Your task to perform on an android device: show emergency info Image 0: 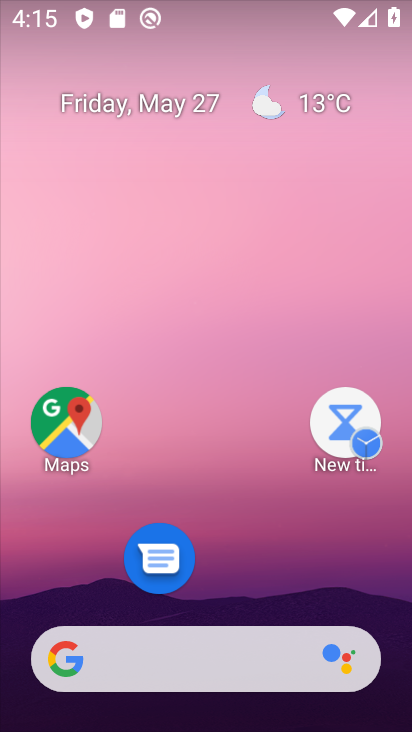
Step 0: drag from (325, 696) to (137, 156)
Your task to perform on an android device: show emergency info Image 1: 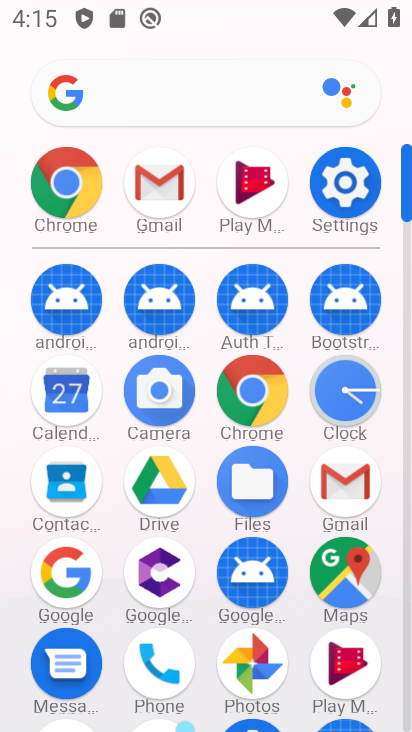
Step 1: click (349, 185)
Your task to perform on an android device: show emergency info Image 2: 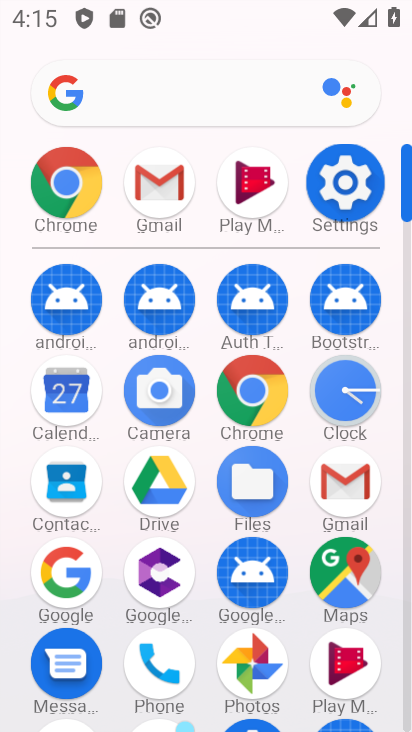
Step 2: click (354, 181)
Your task to perform on an android device: show emergency info Image 3: 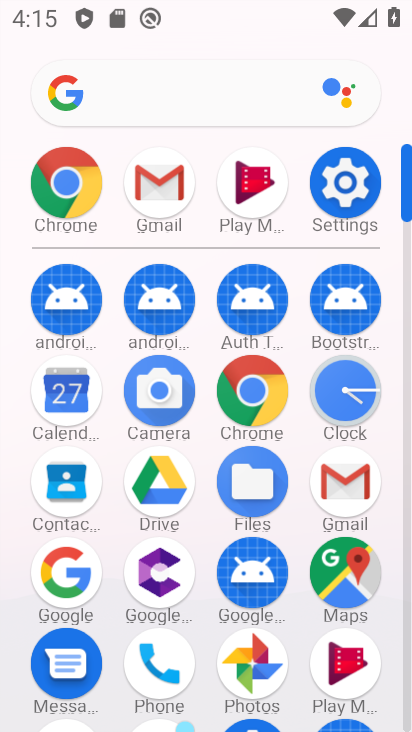
Step 3: click (356, 181)
Your task to perform on an android device: show emergency info Image 4: 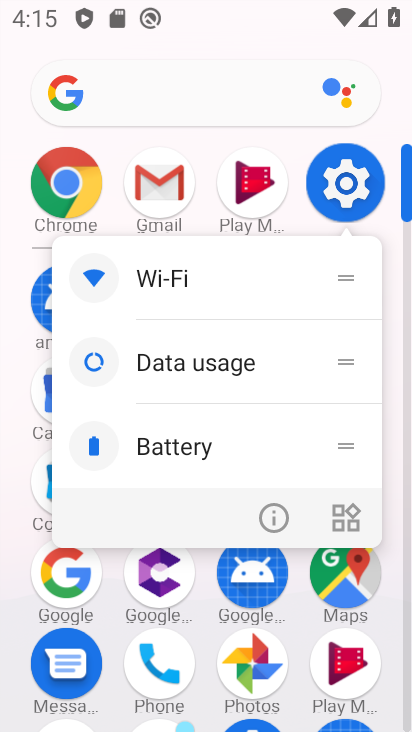
Step 4: click (356, 181)
Your task to perform on an android device: show emergency info Image 5: 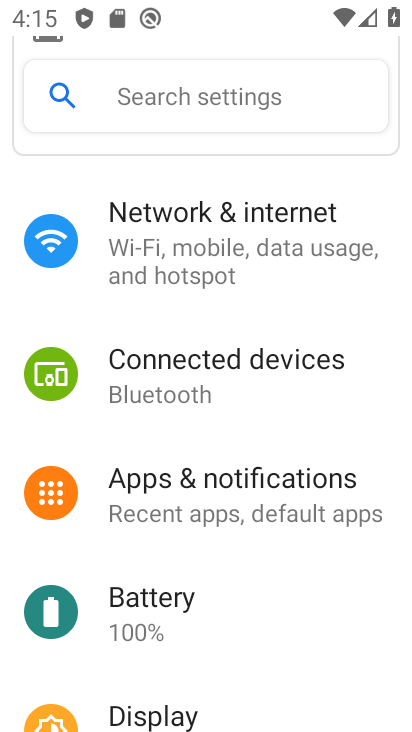
Step 5: drag from (216, 499) to (166, 142)
Your task to perform on an android device: show emergency info Image 6: 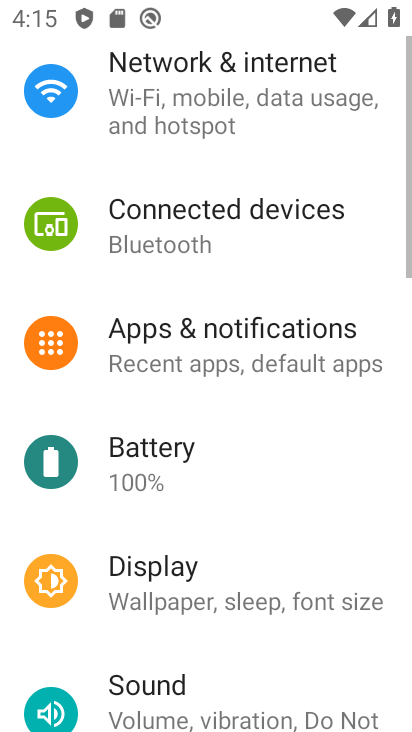
Step 6: drag from (234, 148) to (234, 194)
Your task to perform on an android device: show emergency info Image 7: 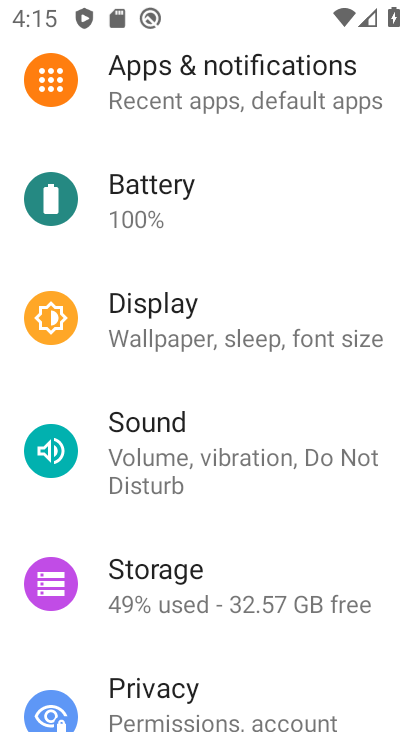
Step 7: drag from (172, 640) to (201, 144)
Your task to perform on an android device: show emergency info Image 8: 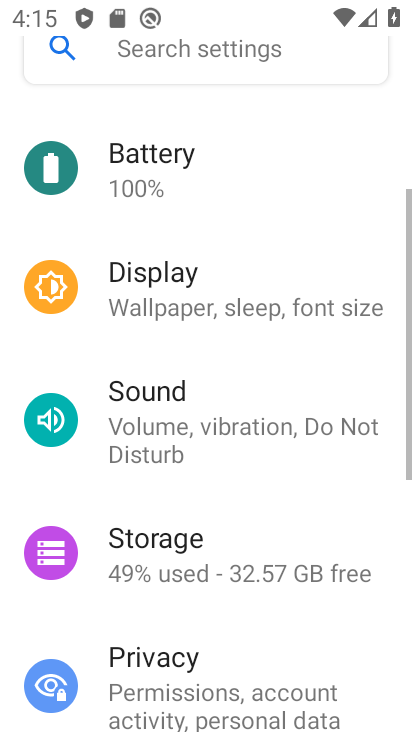
Step 8: drag from (206, 483) to (204, 122)
Your task to perform on an android device: show emergency info Image 9: 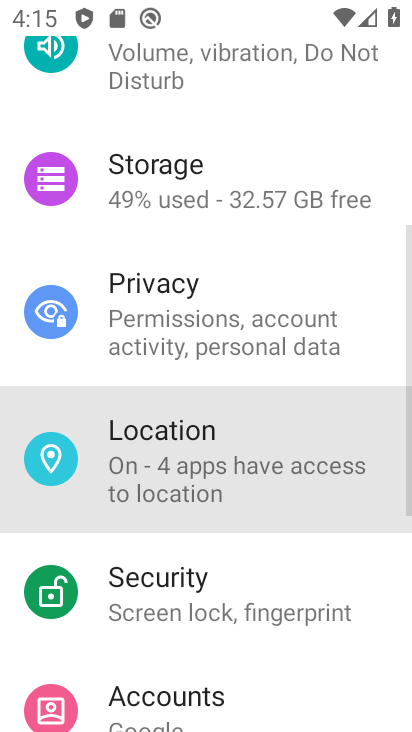
Step 9: drag from (237, 516) to (206, 99)
Your task to perform on an android device: show emergency info Image 10: 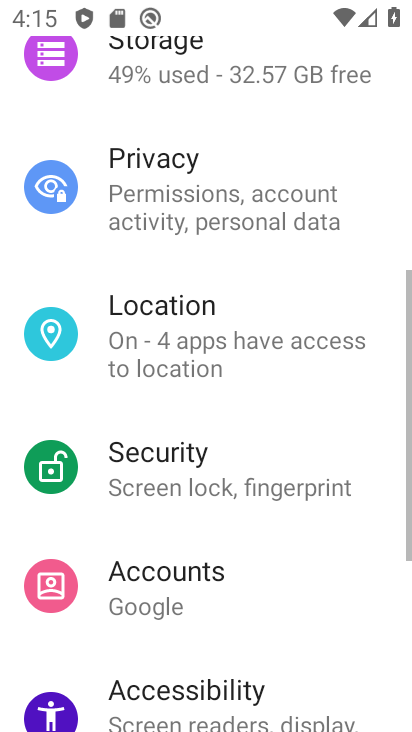
Step 10: drag from (188, 499) to (145, 103)
Your task to perform on an android device: show emergency info Image 11: 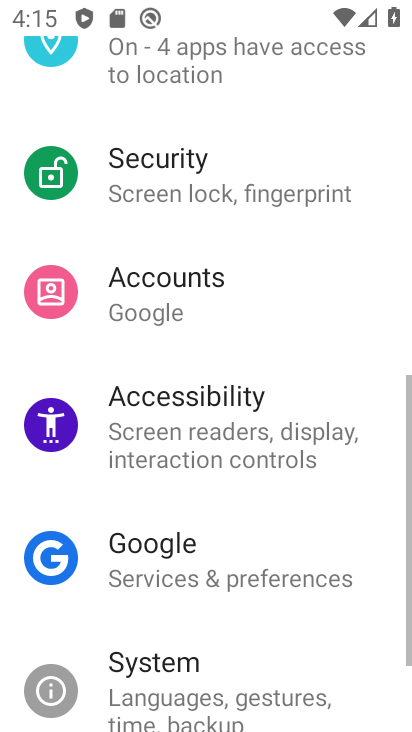
Step 11: drag from (190, 356) to (190, 88)
Your task to perform on an android device: show emergency info Image 12: 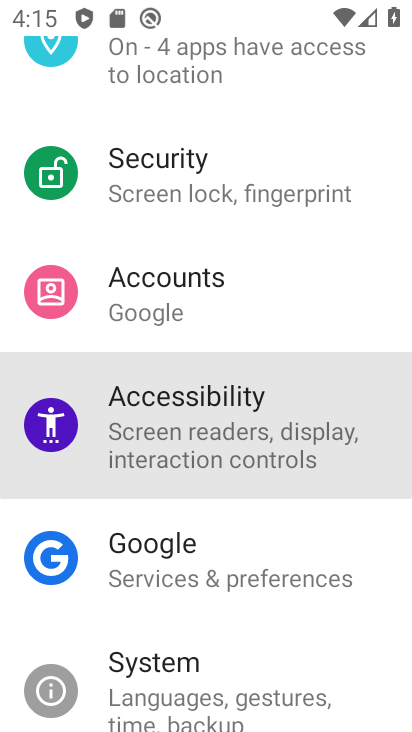
Step 12: drag from (173, 530) to (170, 206)
Your task to perform on an android device: show emergency info Image 13: 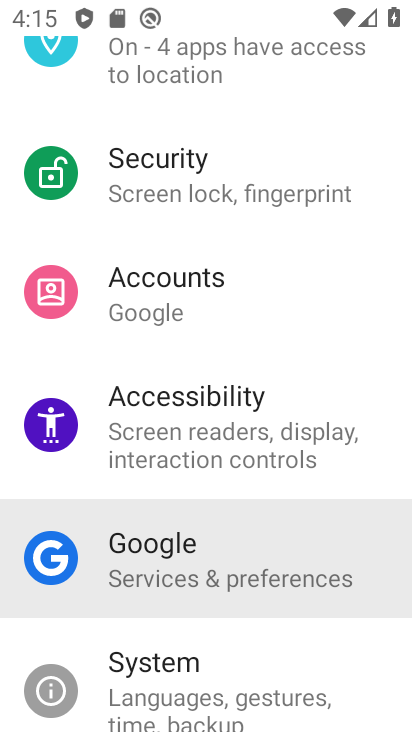
Step 13: drag from (212, 547) to (215, 154)
Your task to perform on an android device: show emergency info Image 14: 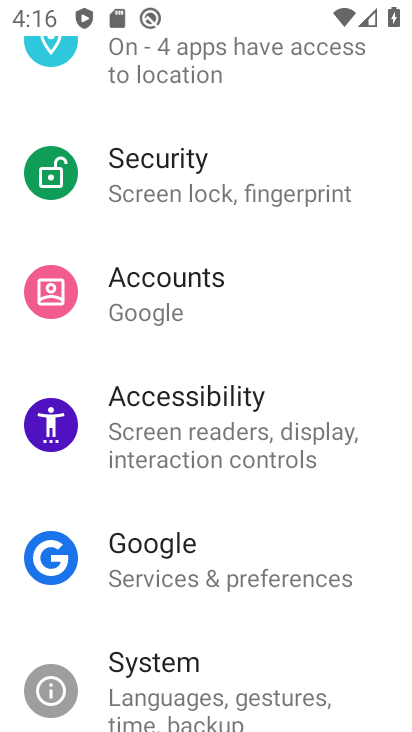
Step 14: click (168, 172)
Your task to perform on an android device: show emergency info Image 15: 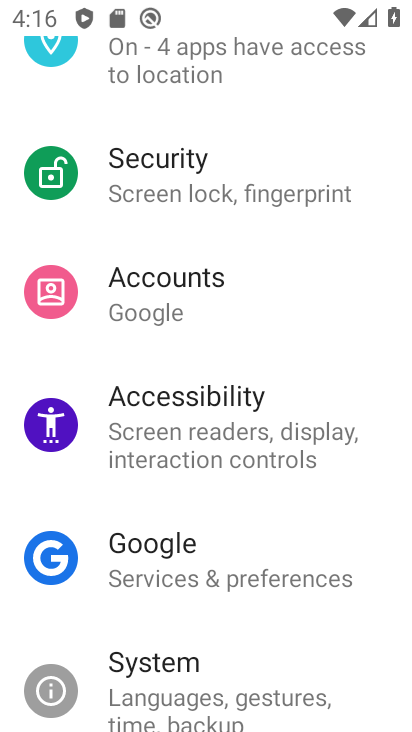
Step 15: drag from (254, 569) to (209, 78)
Your task to perform on an android device: show emergency info Image 16: 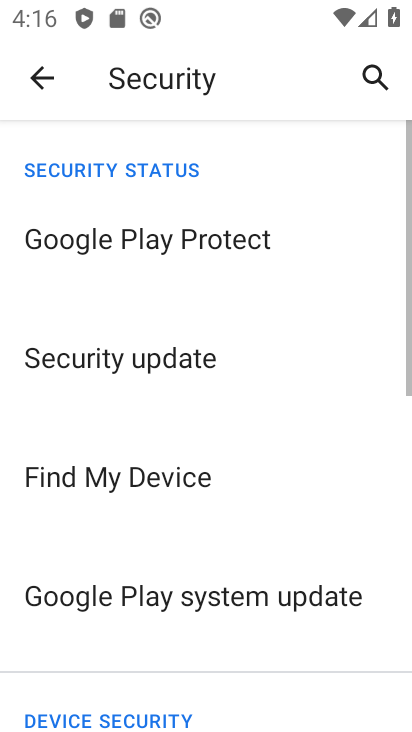
Step 16: drag from (205, 336) to (184, 93)
Your task to perform on an android device: show emergency info Image 17: 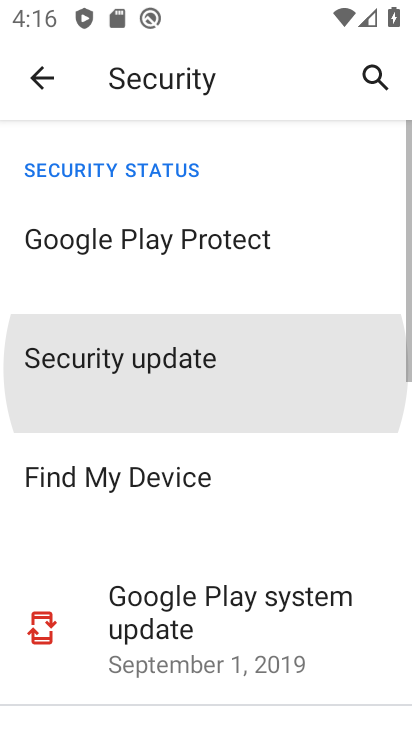
Step 17: drag from (182, 481) to (194, 139)
Your task to perform on an android device: show emergency info Image 18: 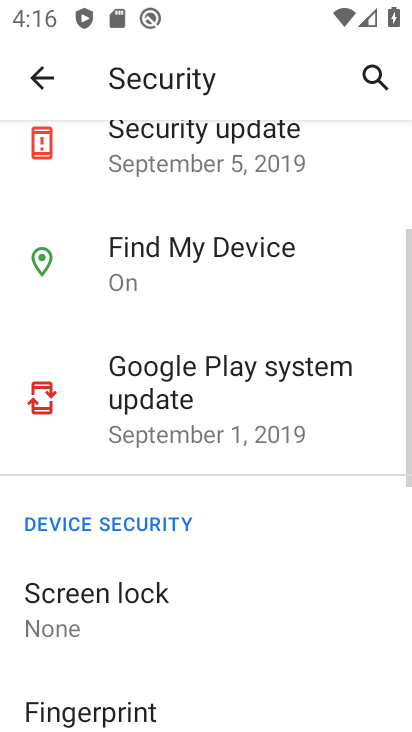
Step 18: click (39, 80)
Your task to perform on an android device: show emergency info Image 19: 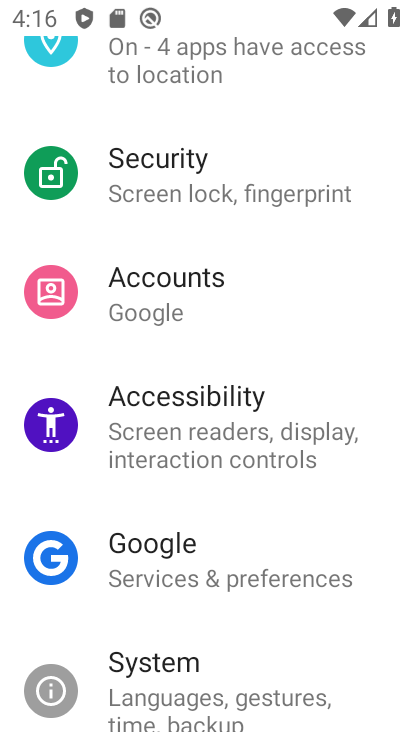
Step 19: drag from (180, 616) to (146, 347)
Your task to perform on an android device: show emergency info Image 20: 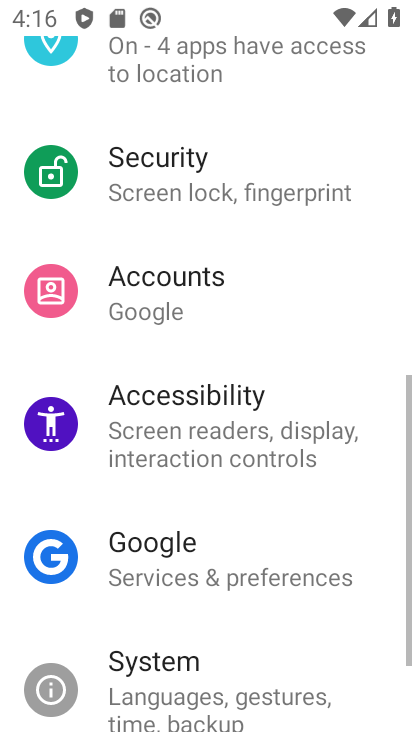
Step 20: drag from (225, 476) to (224, 263)
Your task to perform on an android device: show emergency info Image 21: 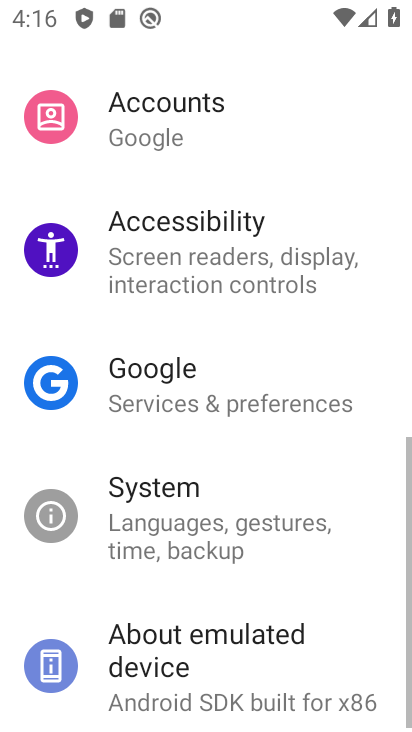
Step 21: click (230, 226)
Your task to perform on an android device: show emergency info Image 22: 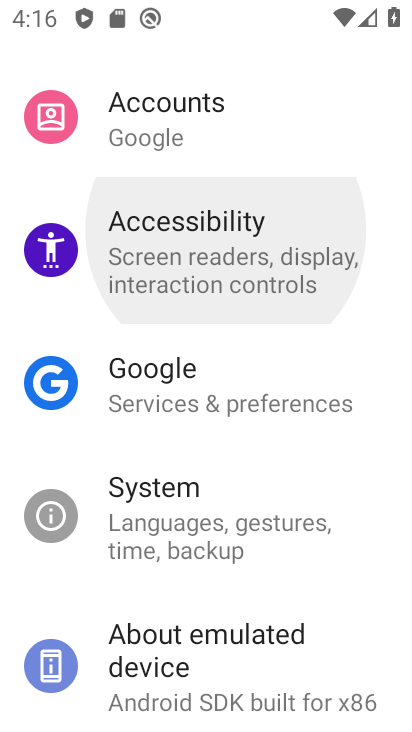
Step 22: drag from (232, 496) to (232, 201)
Your task to perform on an android device: show emergency info Image 23: 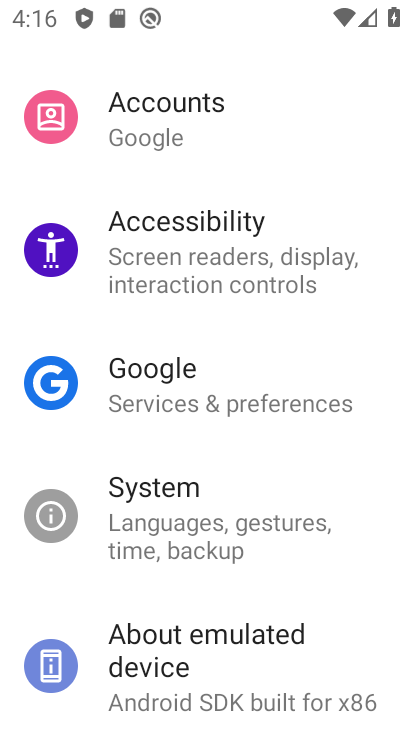
Step 23: click (151, 703)
Your task to perform on an android device: show emergency info Image 24: 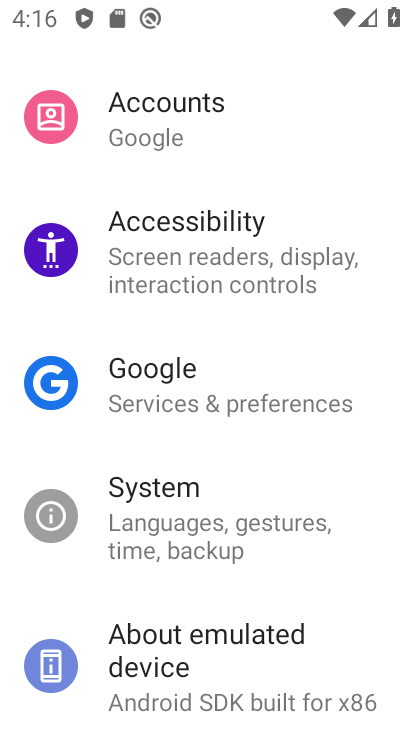
Step 24: click (157, 690)
Your task to perform on an android device: show emergency info Image 25: 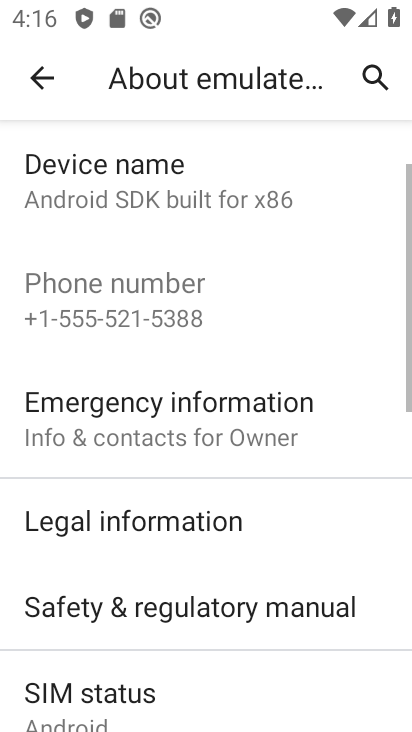
Step 25: task complete